Your task to perform on an android device: Show me popular games on the Play Store Image 0: 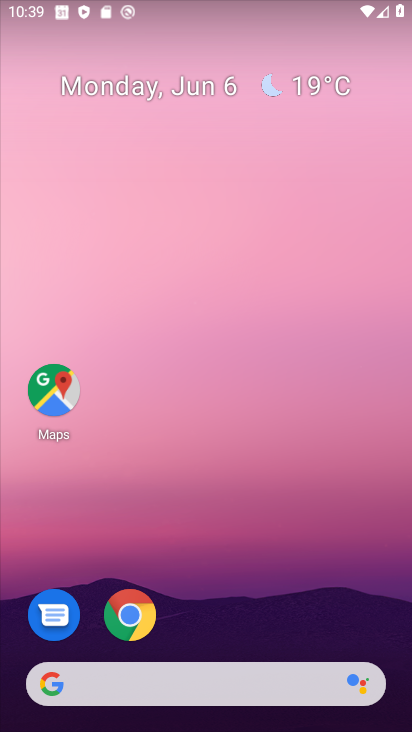
Step 0: drag from (259, 635) to (267, 255)
Your task to perform on an android device: Show me popular games on the Play Store Image 1: 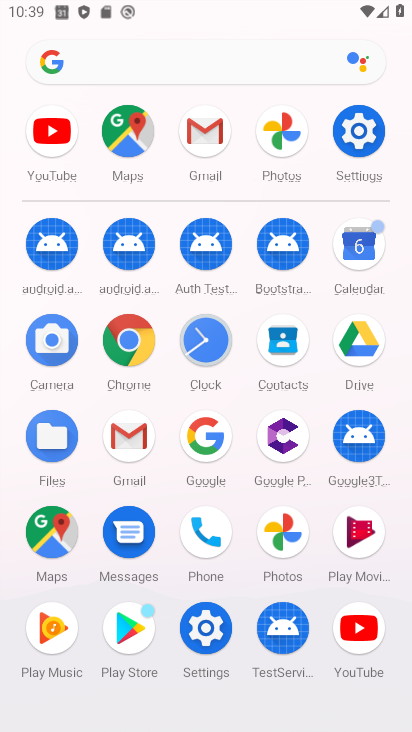
Step 1: click (141, 631)
Your task to perform on an android device: Show me popular games on the Play Store Image 2: 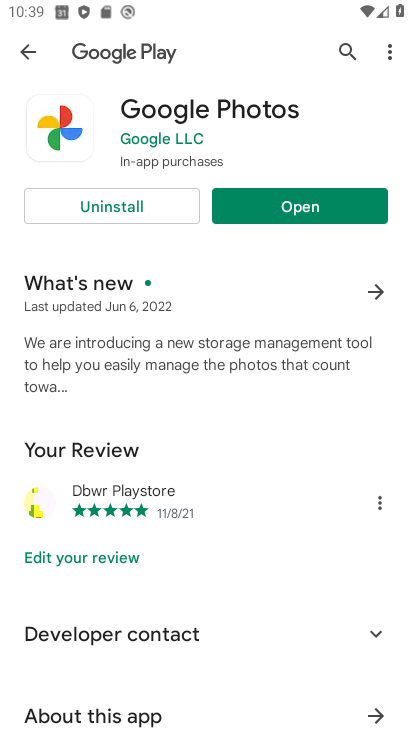
Step 2: click (32, 50)
Your task to perform on an android device: Show me popular games on the Play Store Image 3: 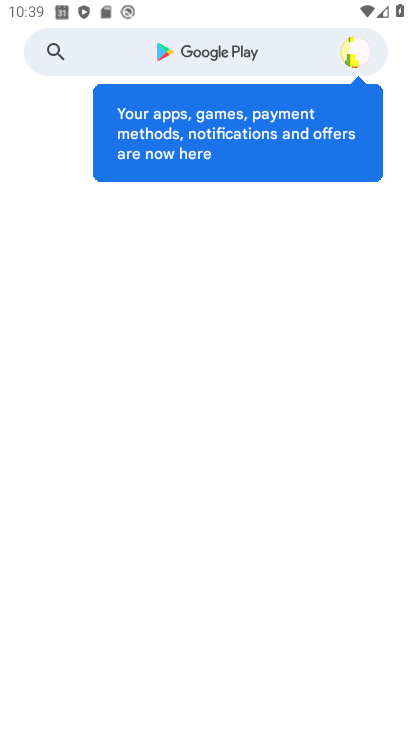
Step 3: click (32, 50)
Your task to perform on an android device: Show me popular games on the Play Store Image 4: 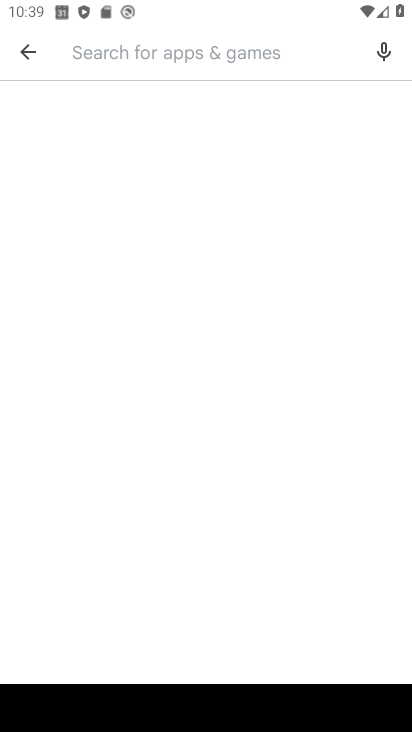
Step 4: click (36, 49)
Your task to perform on an android device: Show me popular games on the Play Store Image 5: 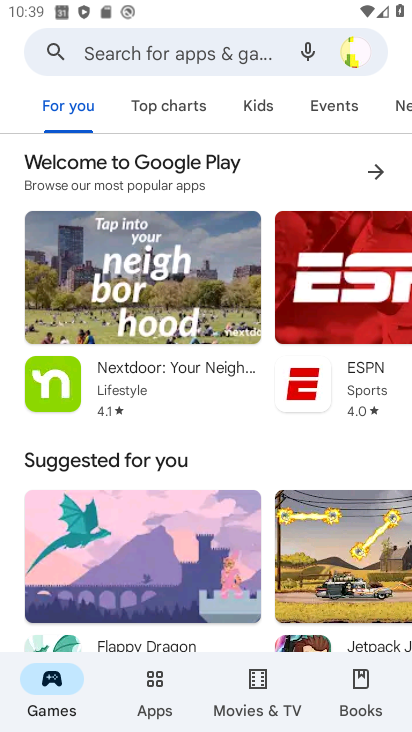
Step 5: click (170, 102)
Your task to perform on an android device: Show me popular games on the Play Store Image 6: 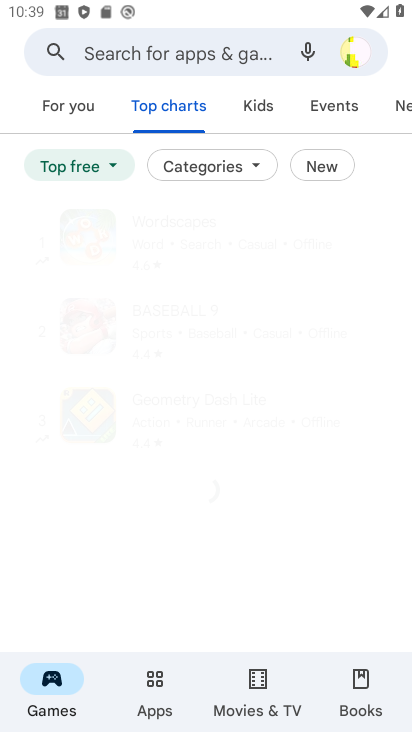
Step 6: task complete